Your task to perform on an android device: refresh tabs in the chrome app Image 0: 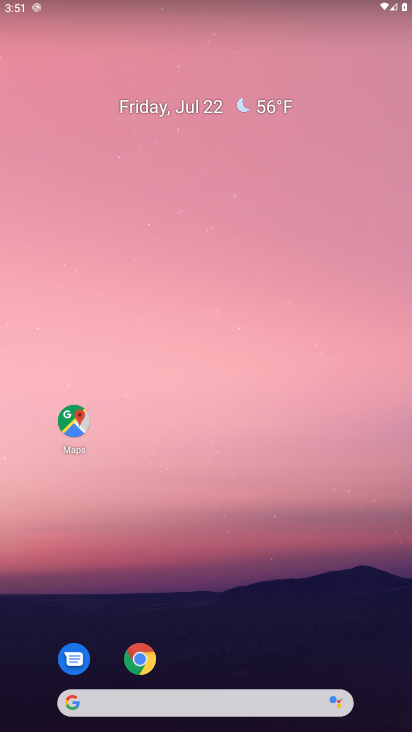
Step 0: click (144, 665)
Your task to perform on an android device: refresh tabs in the chrome app Image 1: 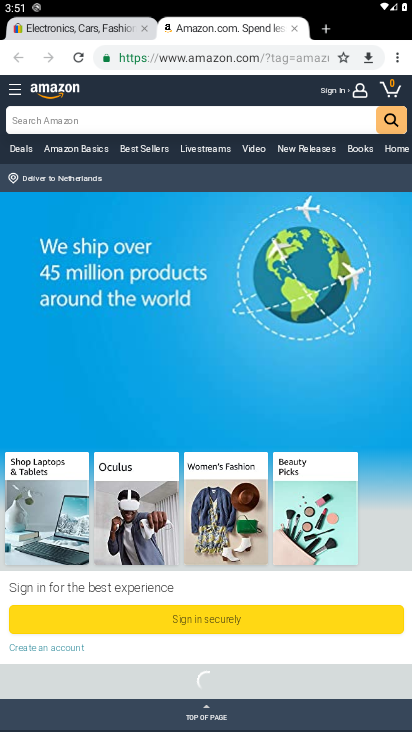
Step 1: click (80, 55)
Your task to perform on an android device: refresh tabs in the chrome app Image 2: 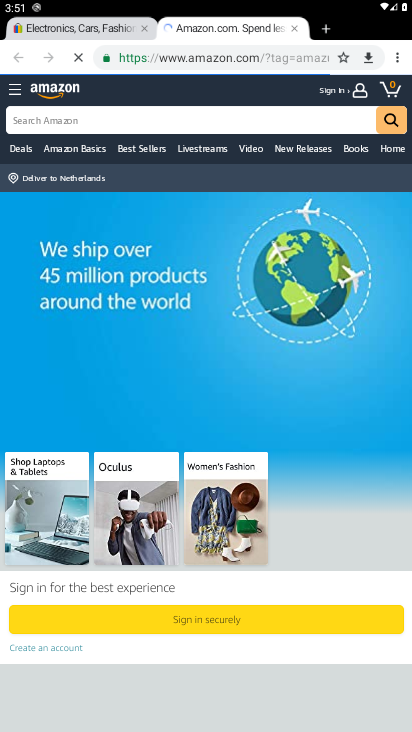
Step 2: task complete